Your task to perform on an android device: Show me productivity apps on the Play Store Image 0: 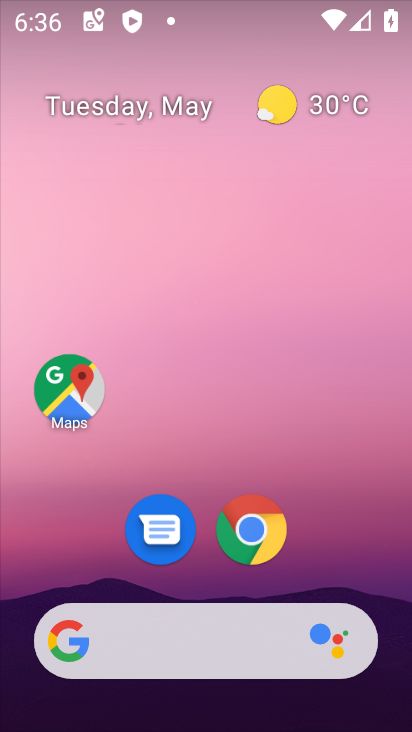
Step 0: click (363, 147)
Your task to perform on an android device: Show me productivity apps on the Play Store Image 1: 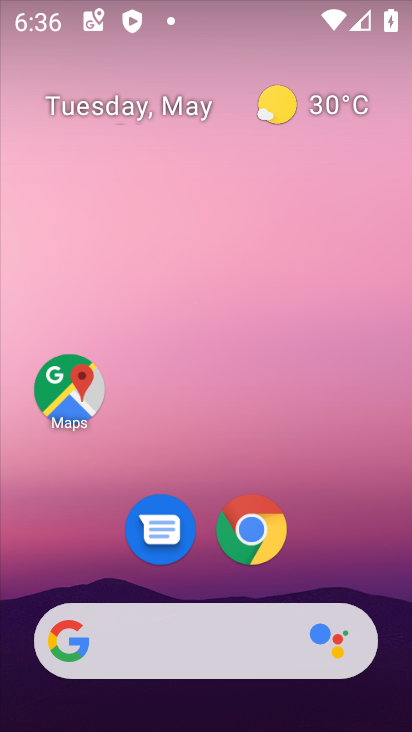
Step 1: drag from (357, 571) to (344, 47)
Your task to perform on an android device: Show me productivity apps on the Play Store Image 2: 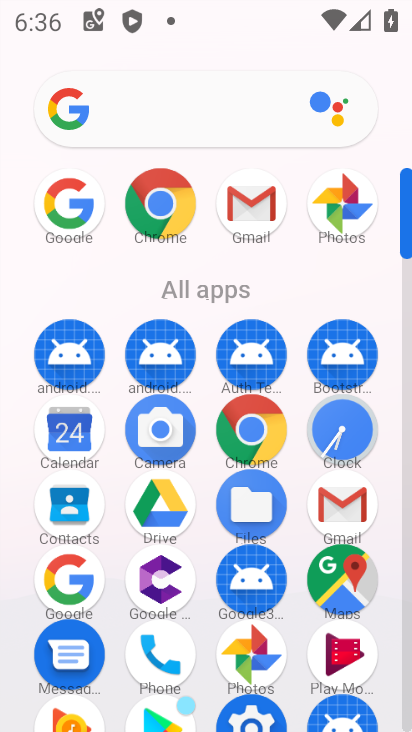
Step 2: drag from (217, 682) to (249, 122)
Your task to perform on an android device: Show me productivity apps on the Play Store Image 3: 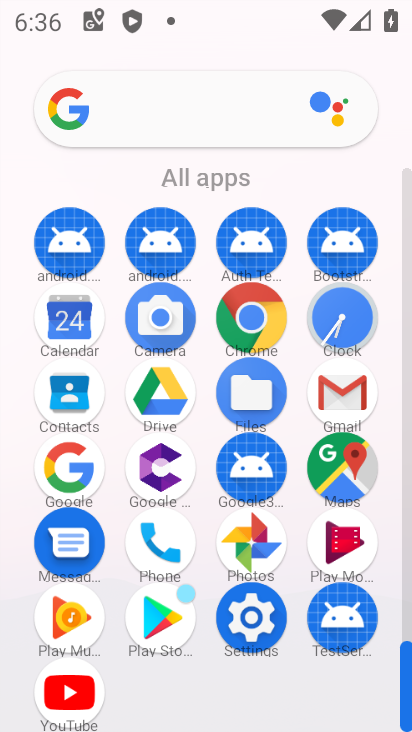
Step 3: click (176, 627)
Your task to perform on an android device: Show me productivity apps on the Play Store Image 4: 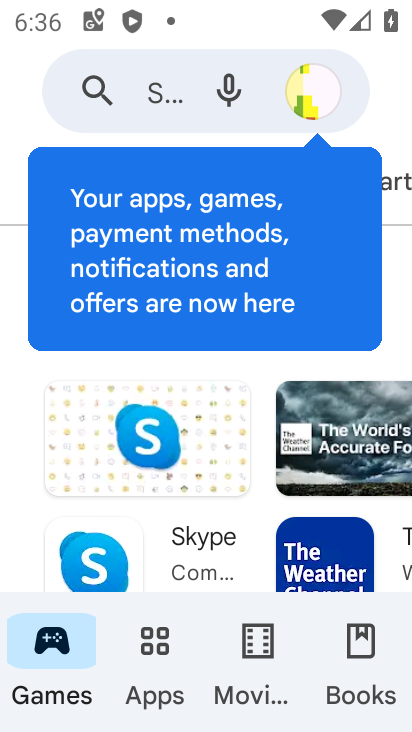
Step 4: task complete